Your task to perform on an android device: toggle notification dots Image 0: 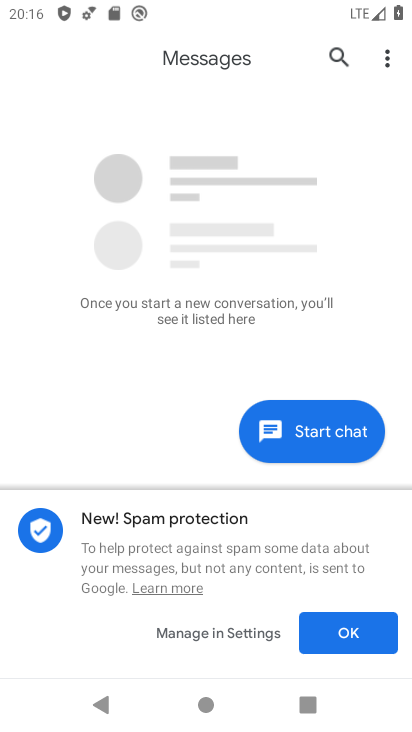
Step 0: press back button
Your task to perform on an android device: toggle notification dots Image 1: 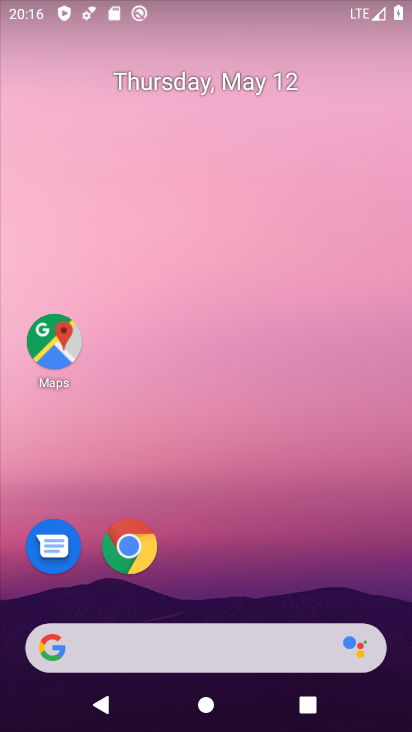
Step 1: drag from (216, 589) to (312, 105)
Your task to perform on an android device: toggle notification dots Image 2: 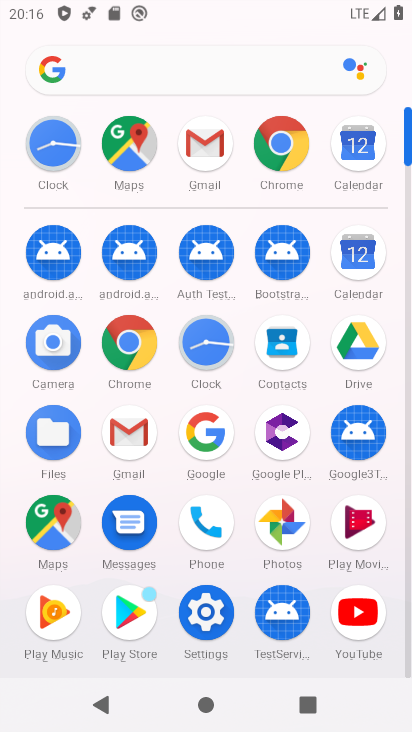
Step 2: click (218, 628)
Your task to perform on an android device: toggle notification dots Image 3: 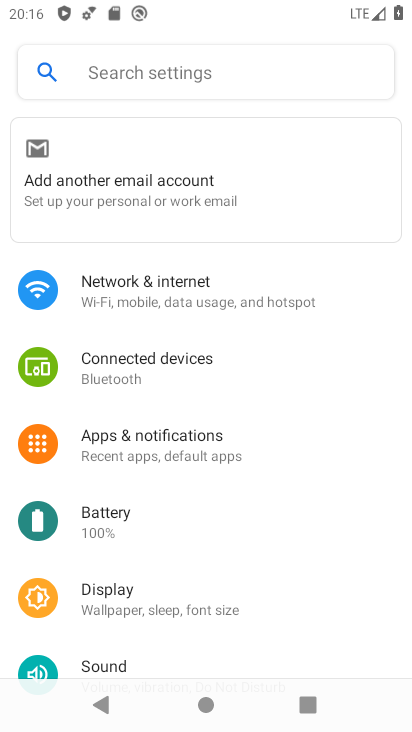
Step 3: click (154, 450)
Your task to perform on an android device: toggle notification dots Image 4: 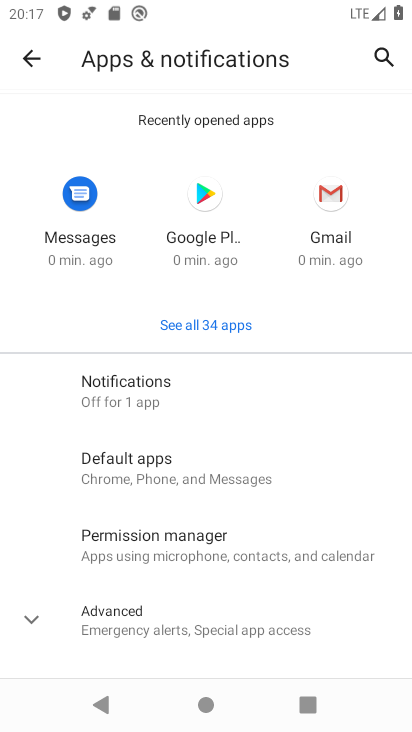
Step 4: click (240, 391)
Your task to perform on an android device: toggle notification dots Image 5: 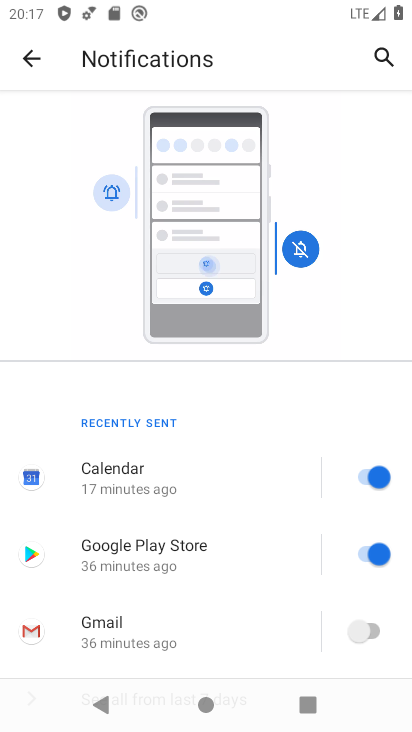
Step 5: drag from (200, 628) to (231, 148)
Your task to perform on an android device: toggle notification dots Image 6: 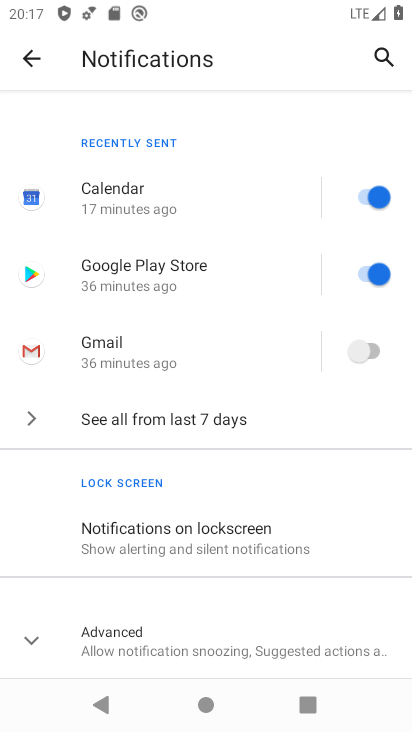
Step 6: click (208, 631)
Your task to perform on an android device: toggle notification dots Image 7: 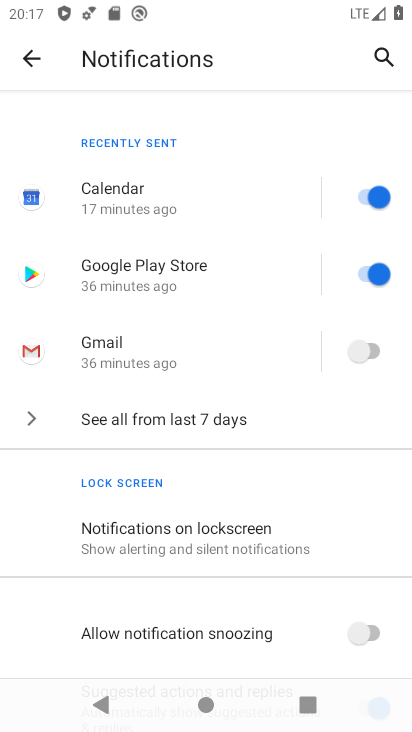
Step 7: drag from (230, 606) to (258, 200)
Your task to perform on an android device: toggle notification dots Image 8: 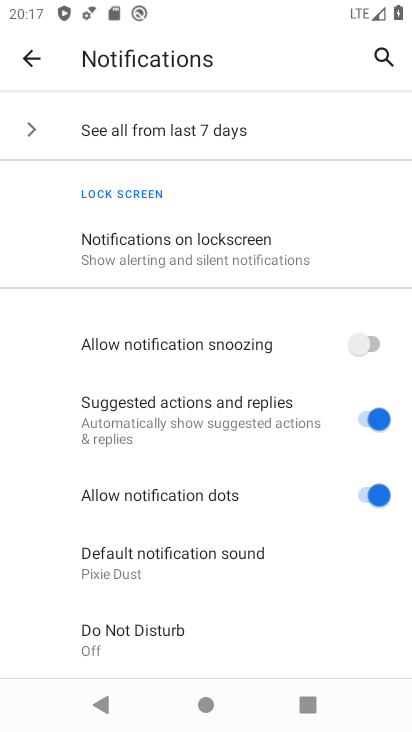
Step 8: click (375, 492)
Your task to perform on an android device: toggle notification dots Image 9: 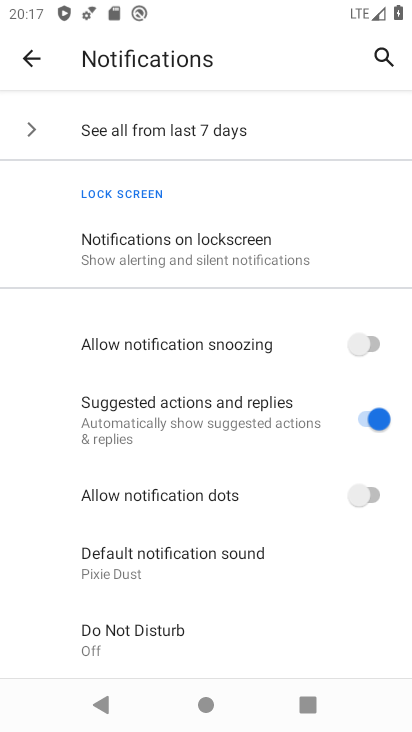
Step 9: task complete